Your task to perform on an android device: Open notification settings Image 0: 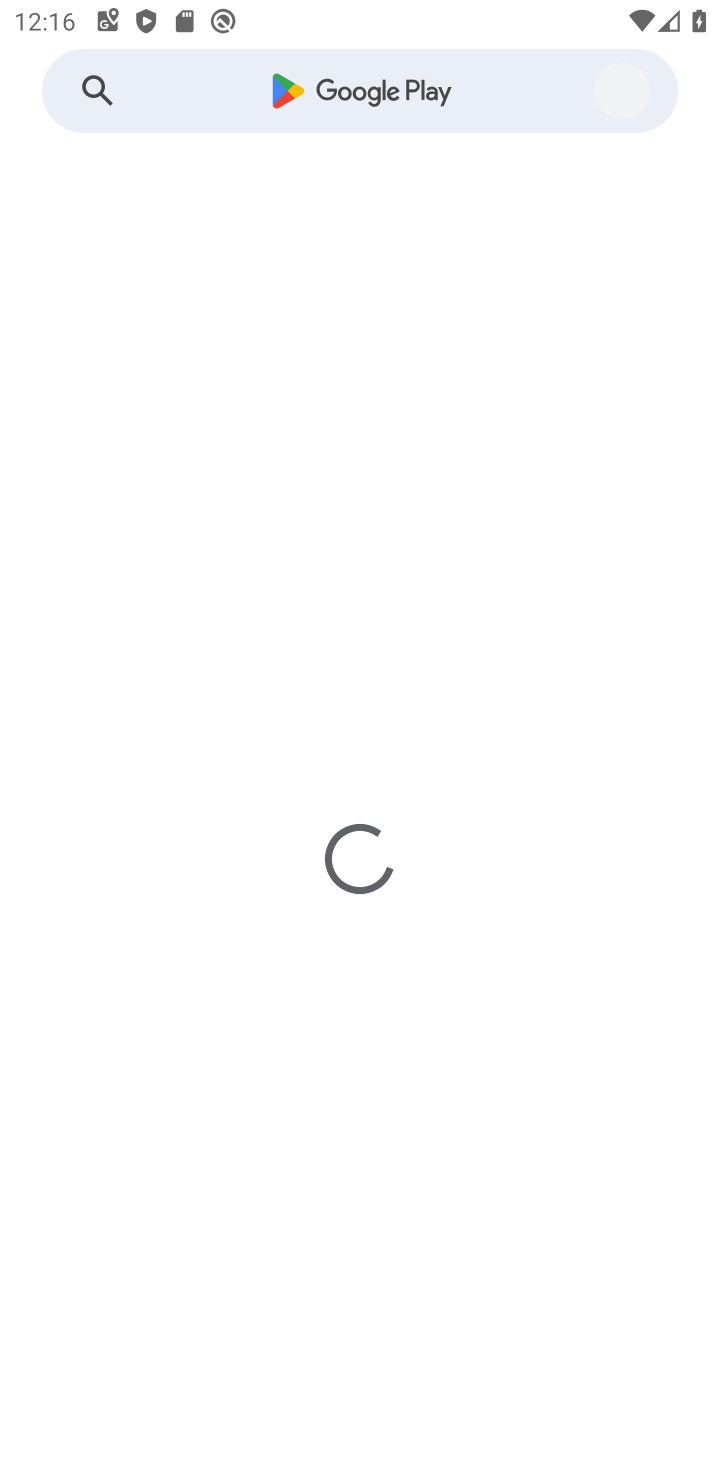
Step 0: press home button
Your task to perform on an android device: Open notification settings Image 1: 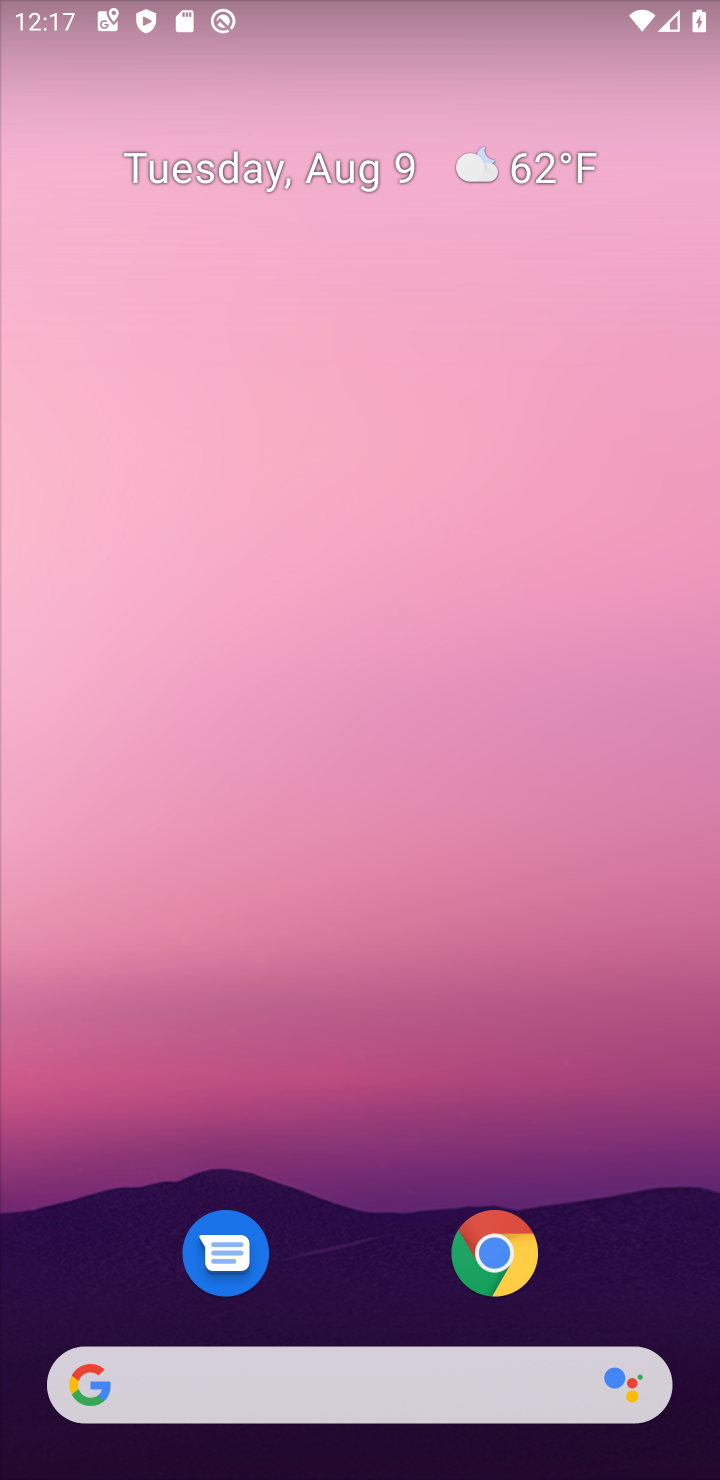
Step 1: drag from (654, 1310) to (311, 53)
Your task to perform on an android device: Open notification settings Image 2: 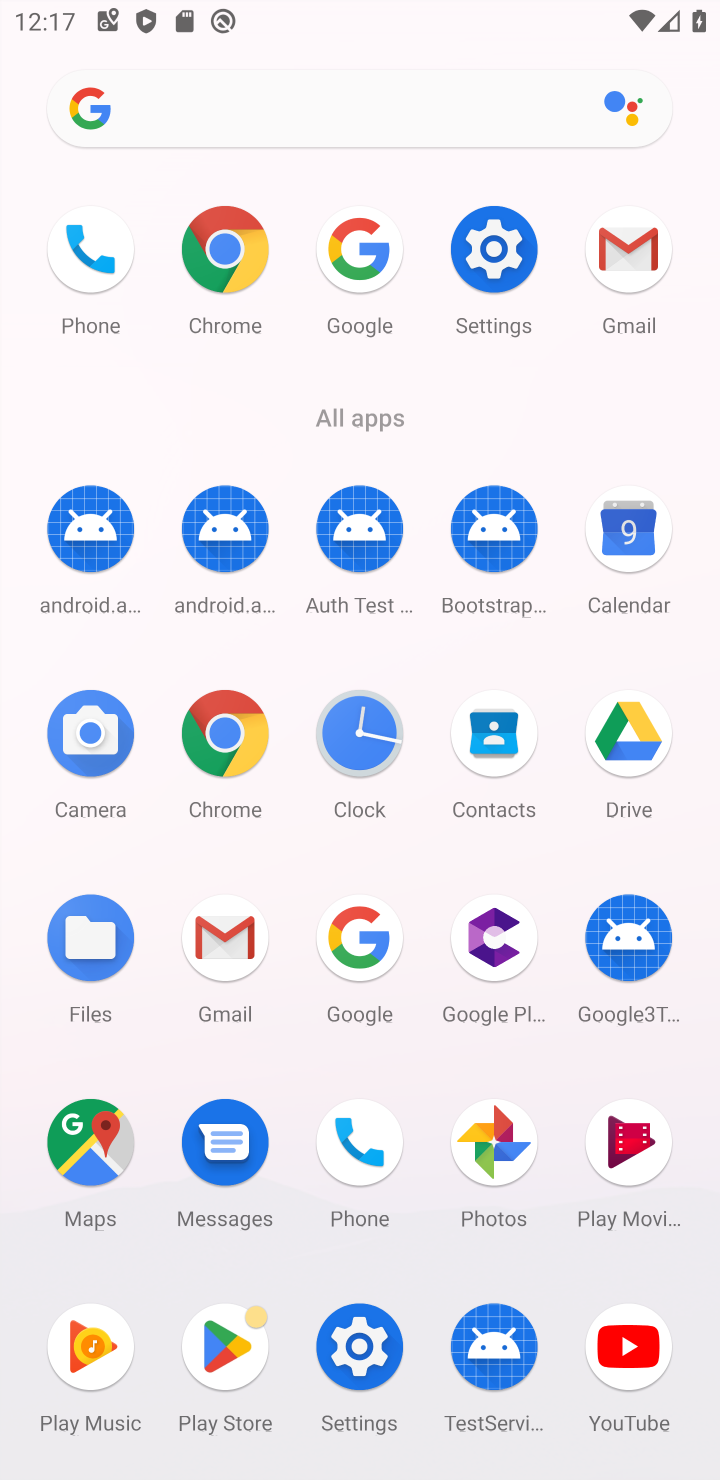
Step 2: click (345, 1328)
Your task to perform on an android device: Open notification settings Image 3: 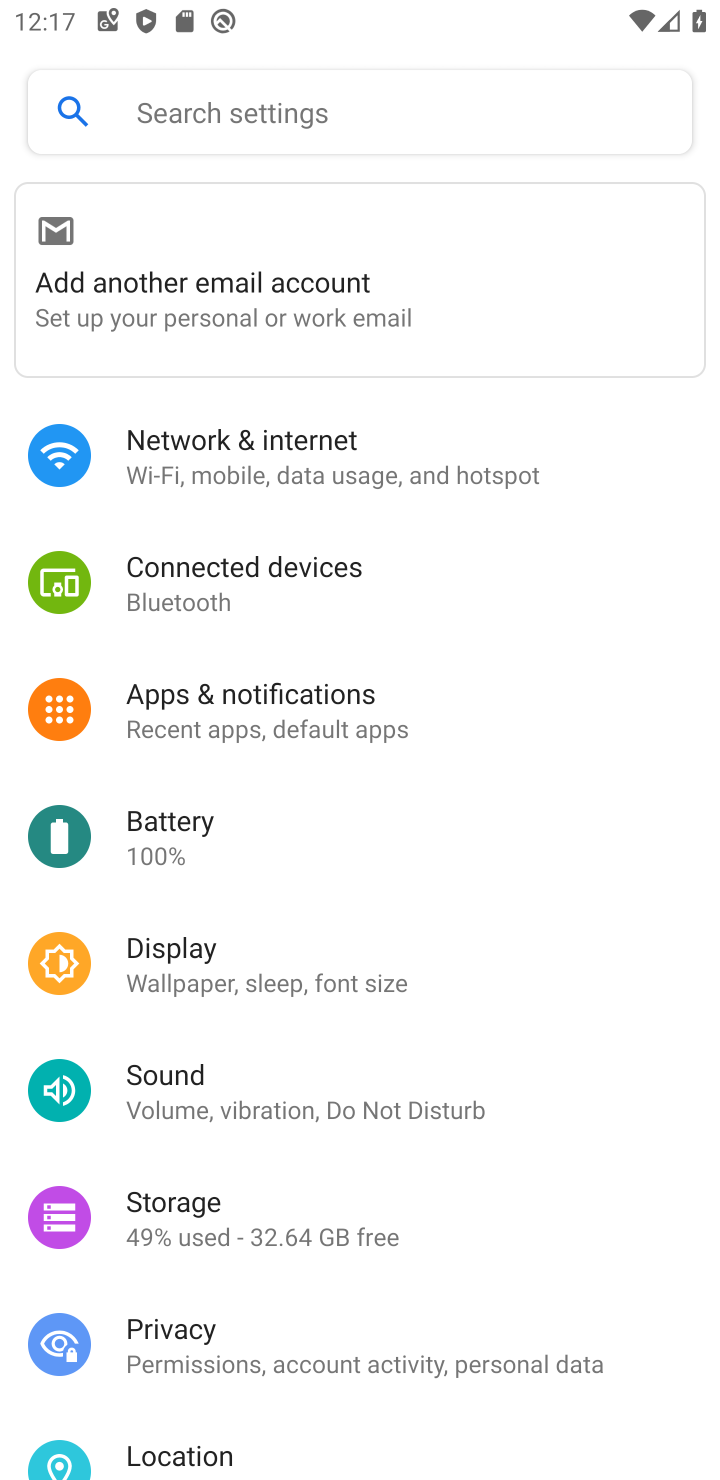
Step 3: click (352, 730)
Your task to perform on an android device: Open notification settings Image 4: 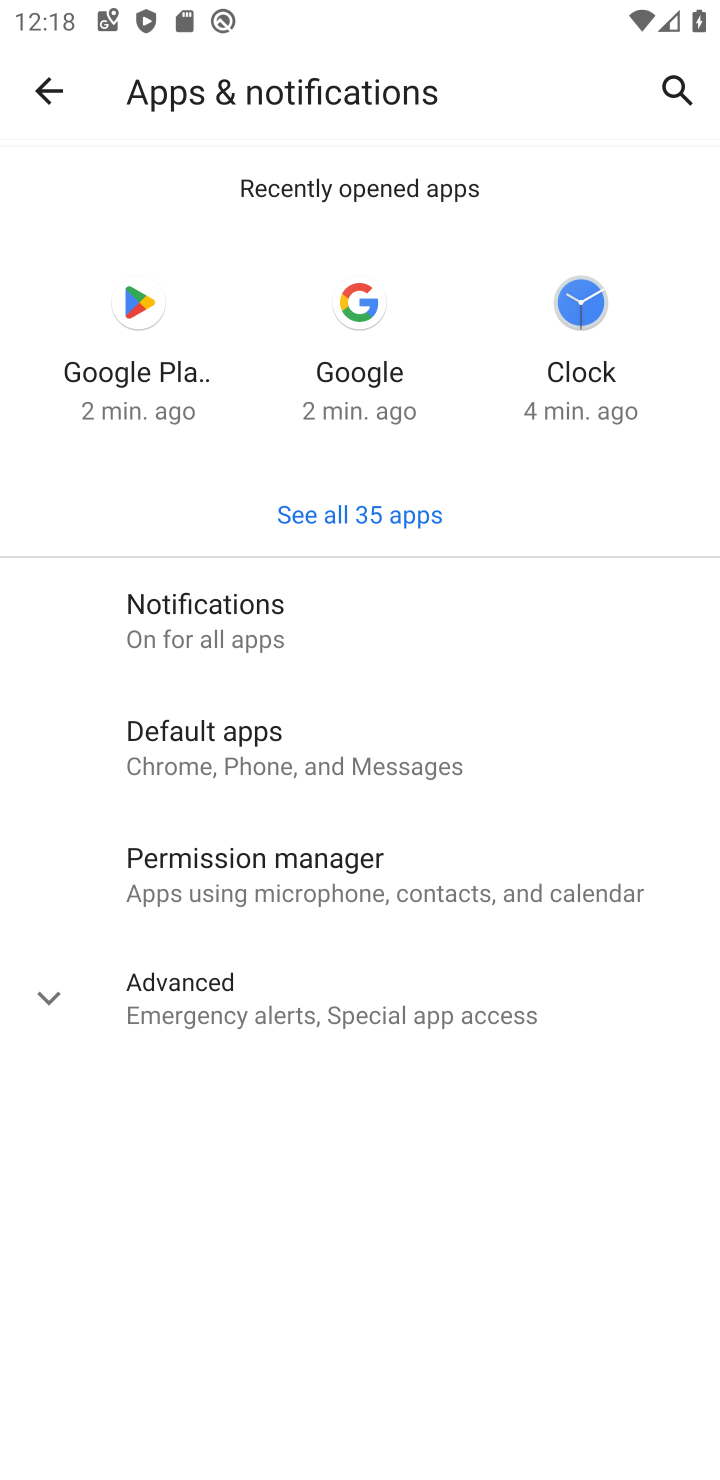
Step 4: click (229, 978)
Your task to perform on an android device: Open notification settings Image 5: 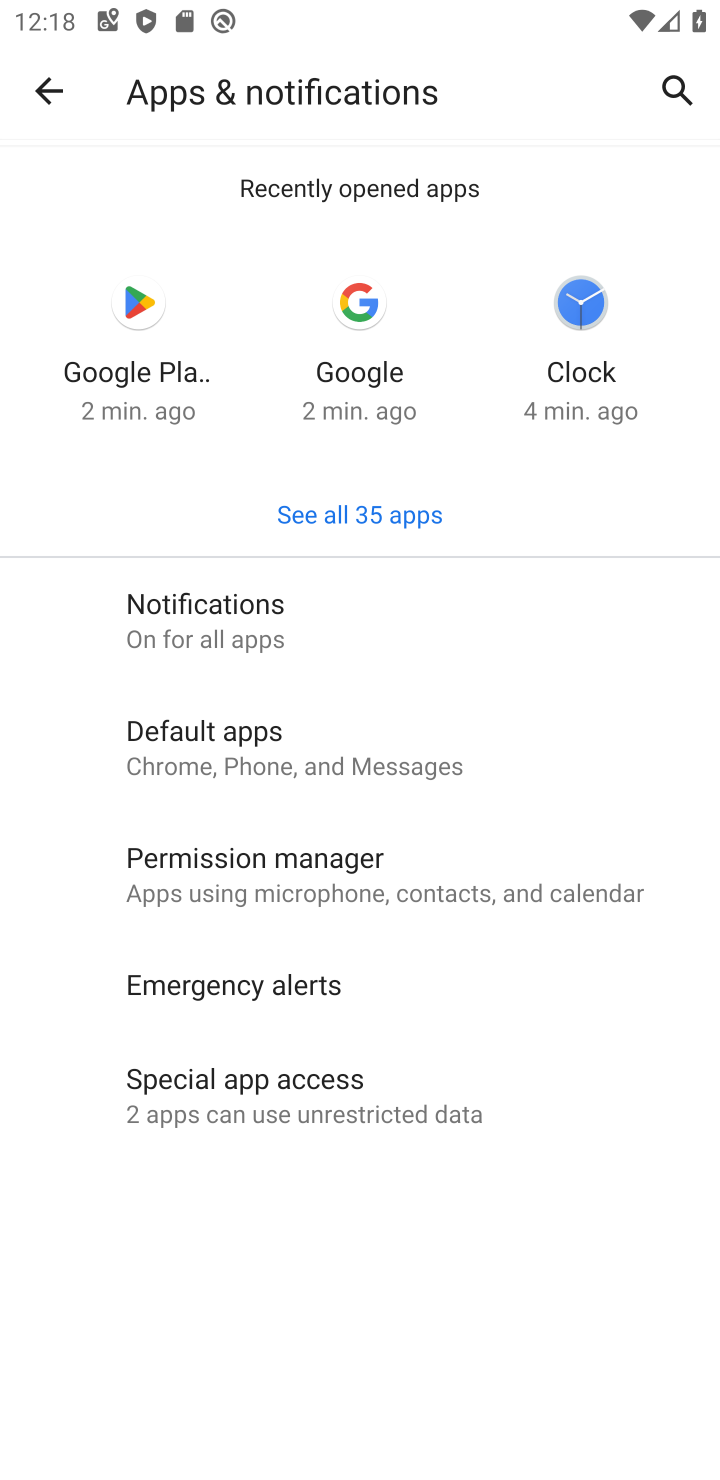
Step 5: click (329, 636)
Your task to perform on an android device: Open notification settings Image 6: 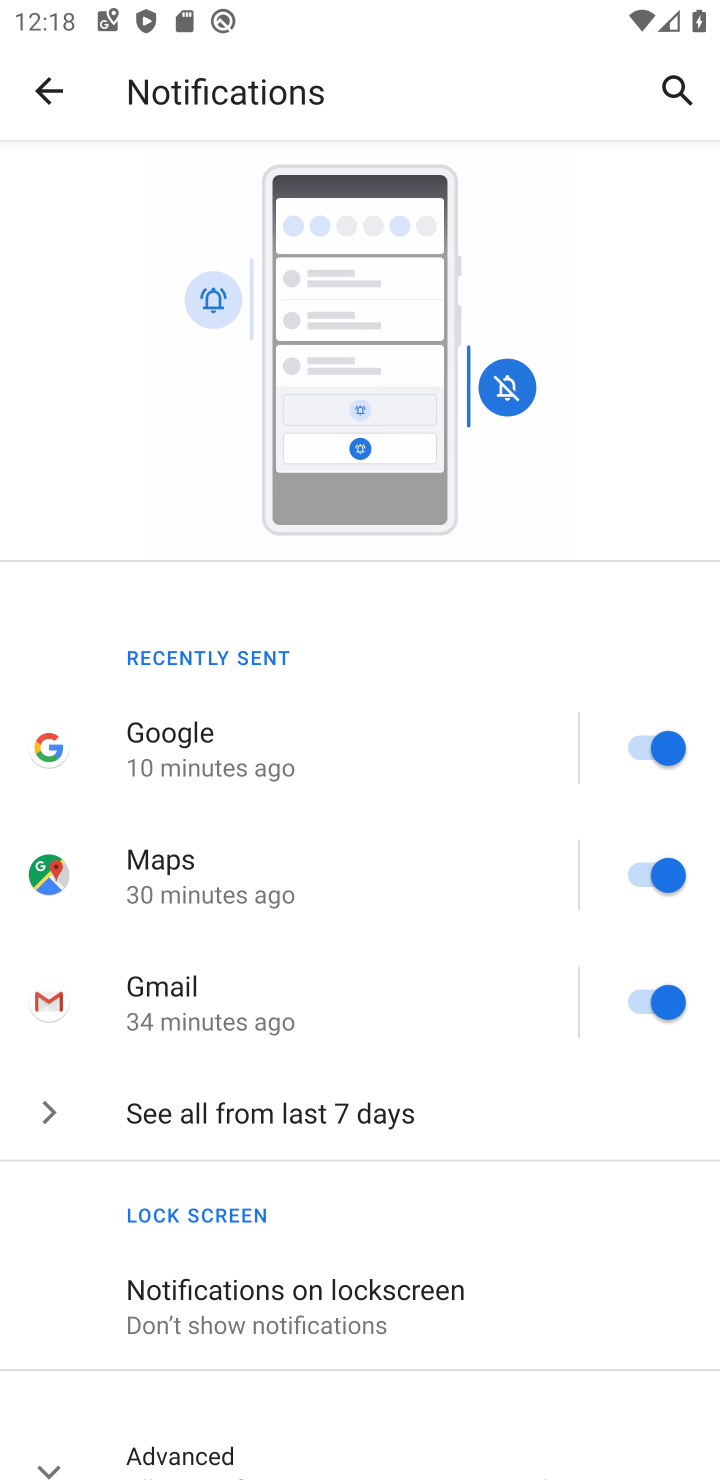
Step 6: task complete